Your task to perform on an android device: turn pop-ups off in chrome Image 0: 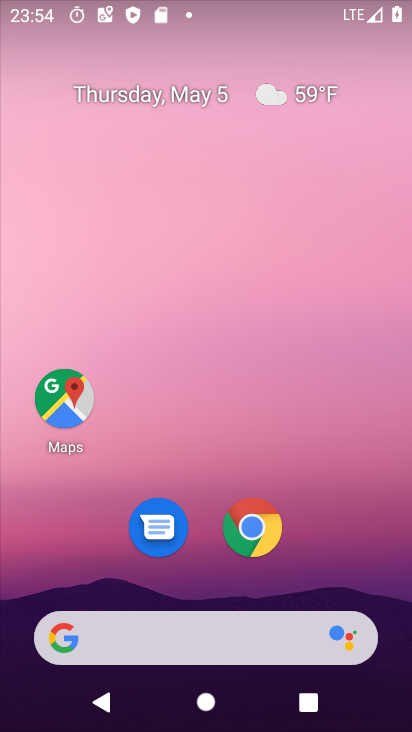
Step 0: click (252, 504)
Your task to perform on an android device: turn pop-ups off in chrome Image 1: 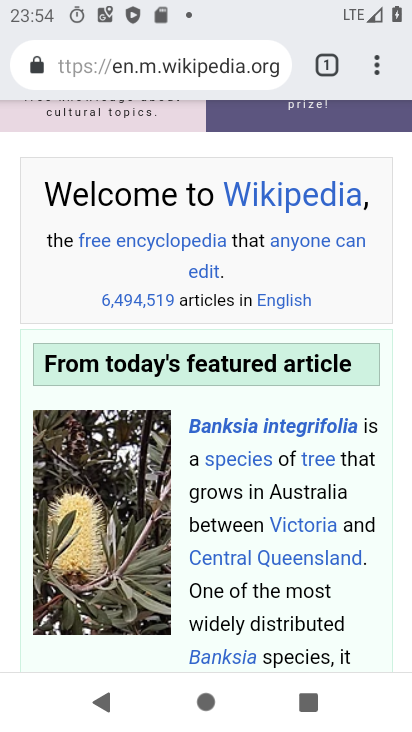
Step 1: click (375, 65)
Your task to perform on an android device: turn pop-ups off in chrome Image 2: 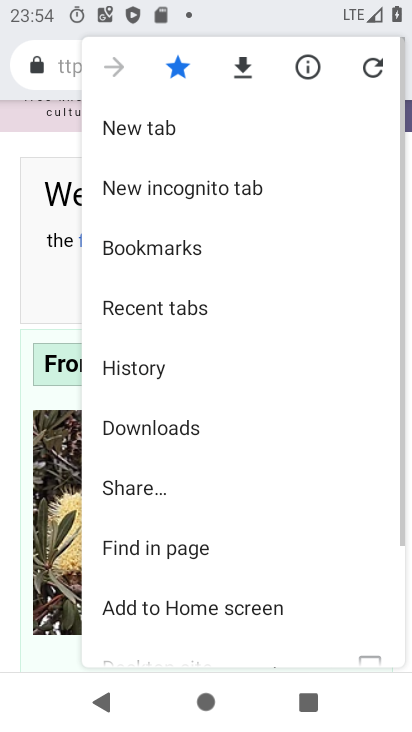
Step 2: drag from (203, 555) to (278, 147)
Your task to perform on an android device: turn pop-ups off in chrome Image 3: 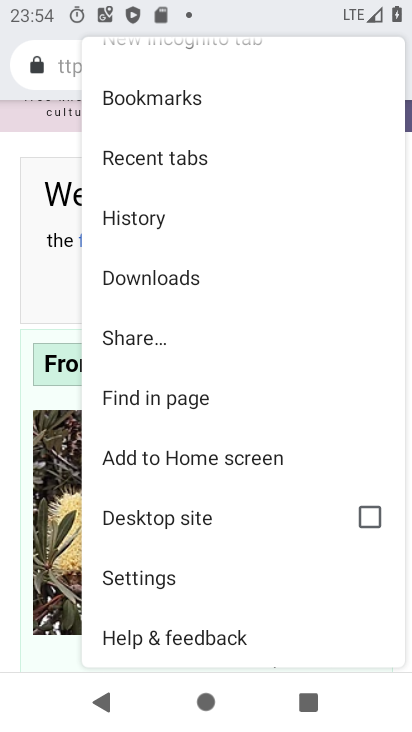
Step 3: click (173, 587)
Your task to perform on an android device: turn pop-ups off in chrome Image 4: 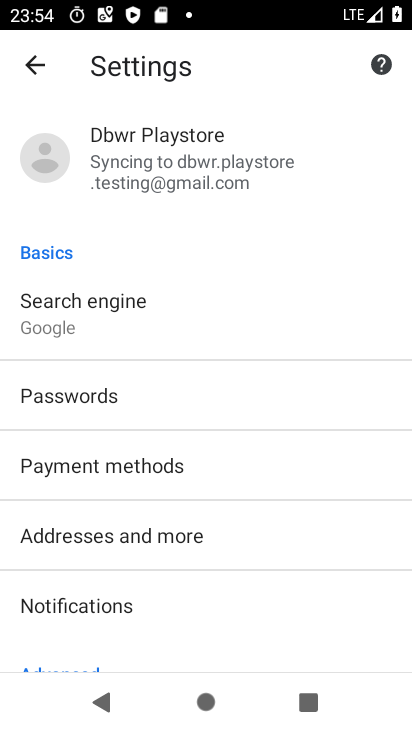
Step 4: drag from (123, 530) to (174, 206)
Your task to perform on an android device: turn pop-ups off in chrome Image 5: 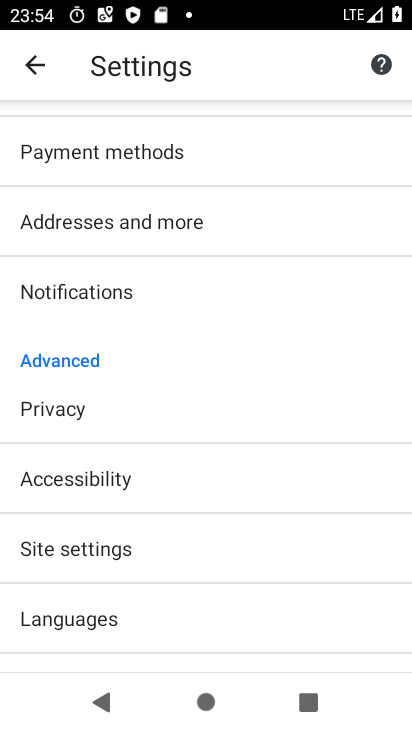
Step 5: click (113, 552)
Your task to perform on an android device: turn pop-ups off in chrome Image 6: 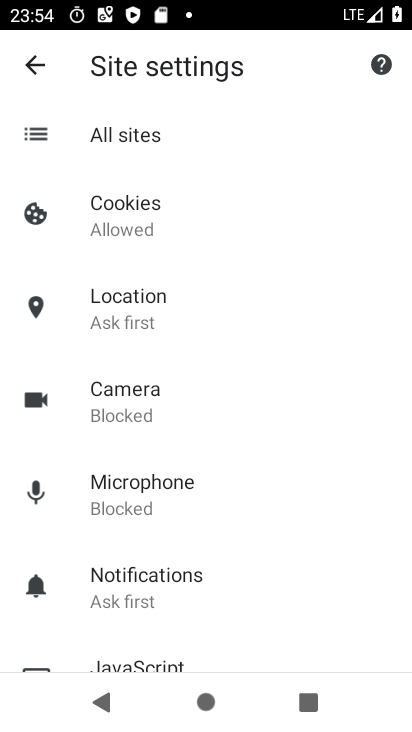
Step 6: drag from (153, 524) to (237, 265)
Your task to perform on an android device: turn pop-ups off in chrome Image 7: 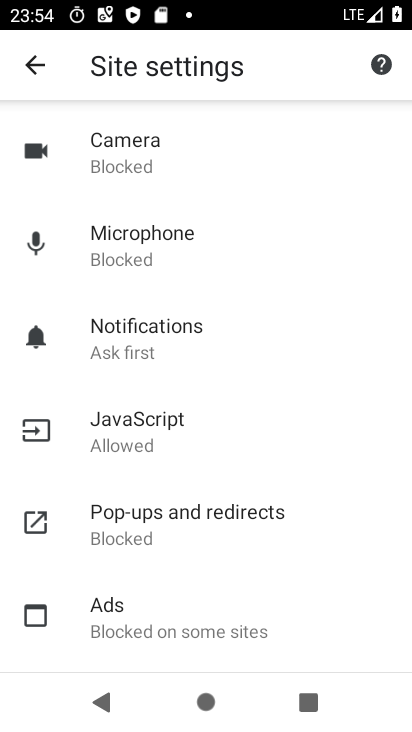
Step 7: click (154, 538)
Your task to perform on an android device: turn pop-ups off in chrome Image 8: 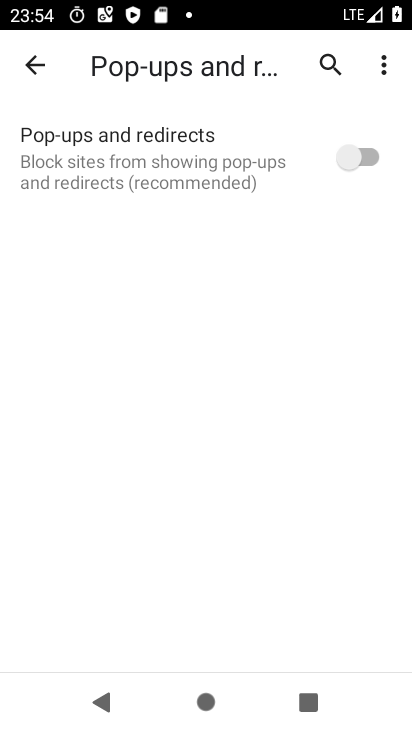
Step 8: task complete